Your task to perform on an android device: delete browsing data in the chrome app Image 0: 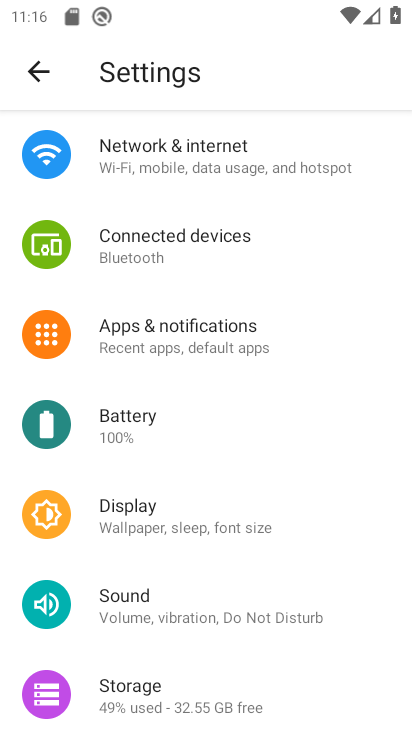
Step 0: press home button
Your task to perform on an android device: delete browsing data in the chrome app Image 1: 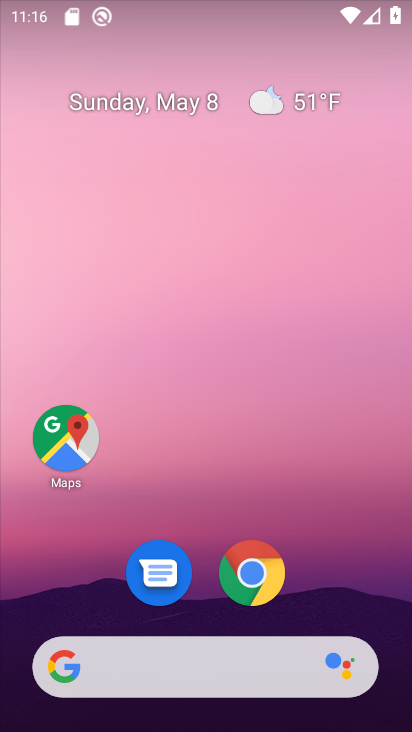
Step 1: click (232, 574)
Your task to perform on an android device: delete browsing data in the chrome app Image 2: 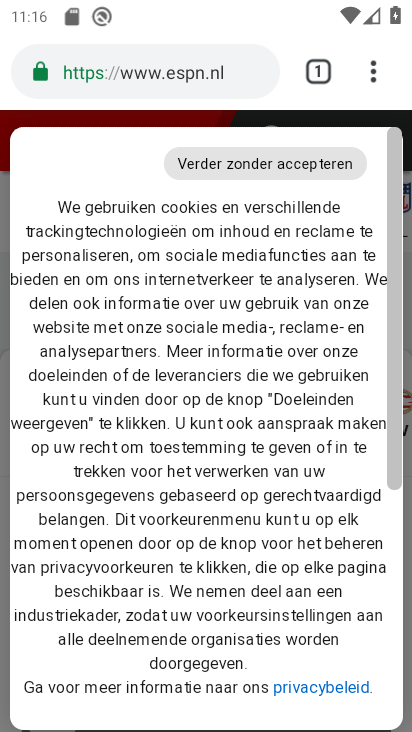
Step 2: click (376, 70)
Your task to perform on an android device: delete browsing data in the chrome app Image 3: 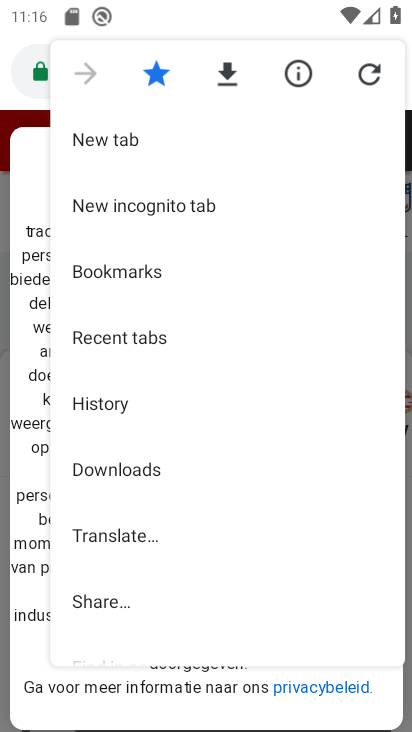
Step 3: drag from (138, 631) to (194, 219)
Your task to perform on an android device: delete browsing data in the chrome app Image 4: 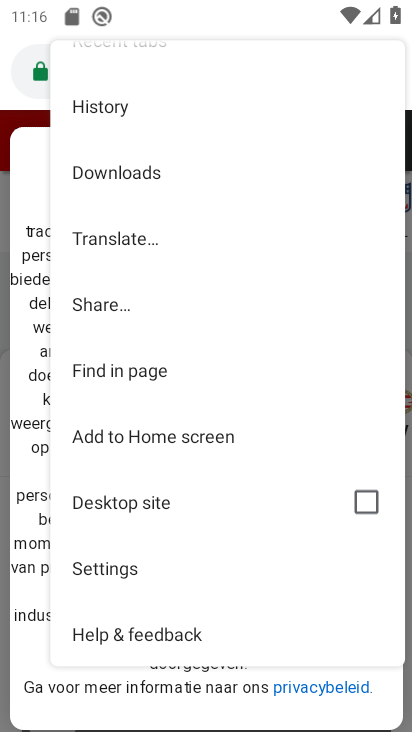
Step 4: click (117, 574)
Your task to perform on an android device: delete browsing data in the chrome app Image 5: 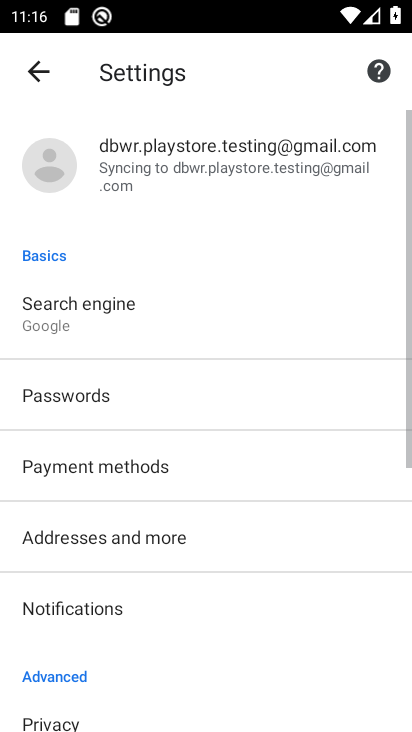
Step 5: drag from (124, 664) to (159, 246)
Your task to perform on an android device: delete browsing data in the chrome app Image 6: 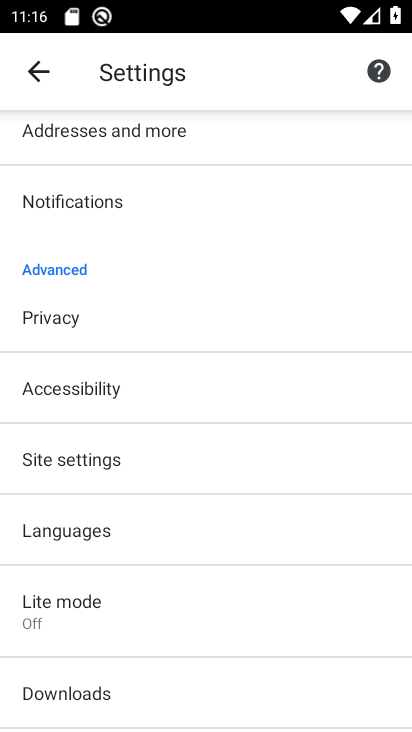
Step 6: click (63, 316)
Your task to perform on an android device: delete browsing data in the chrome app Image 7: 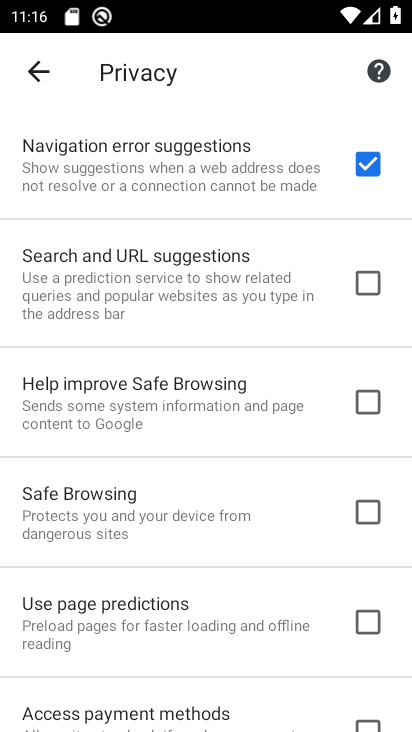
Step 7: drag from (173, 660) to (179, 268)
Your task to perform on an android device: delete browsing data in the chrome app Image 8: 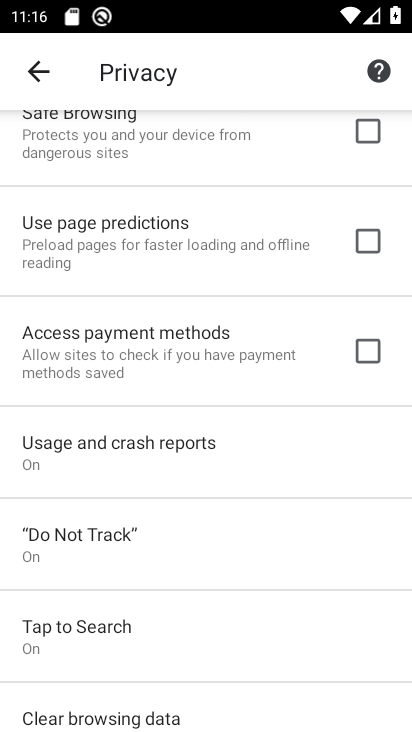
Step 8: drag from (110, 711) to (117, 415)
Your task to perform on an android device: delete browsing data in the chrome app Image 9: 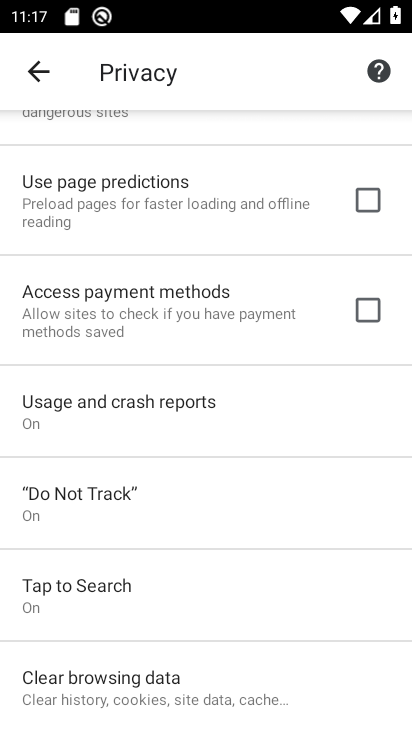
Step 9: drag from (149, 649) to (161, 330)
Your task to perform on an android device: delete browsing data in the chrome app Image 10: 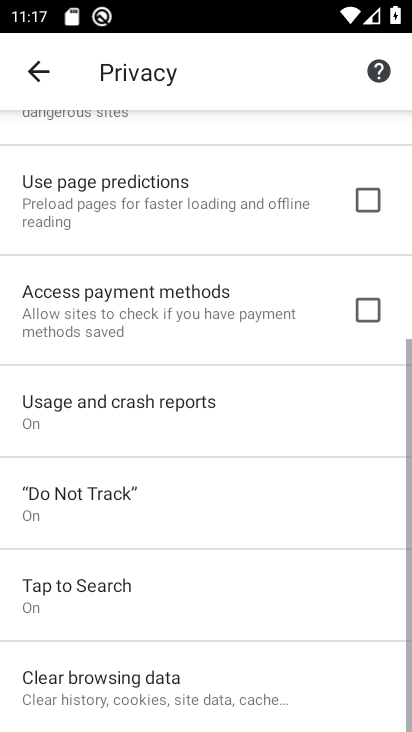
Step 10: click (97, 692)
Your task to perform on an android device: delete browsing data in the chrome app Image 11: 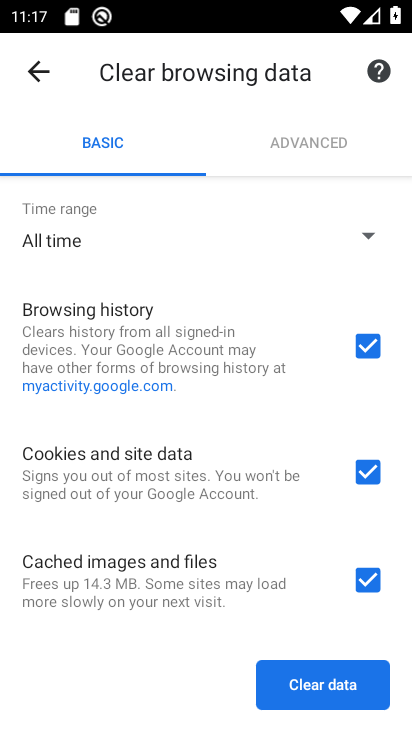
Step 11: click (290, 695)
Your task to perform on an android device: delete browsing data in the chrome app Image 12: 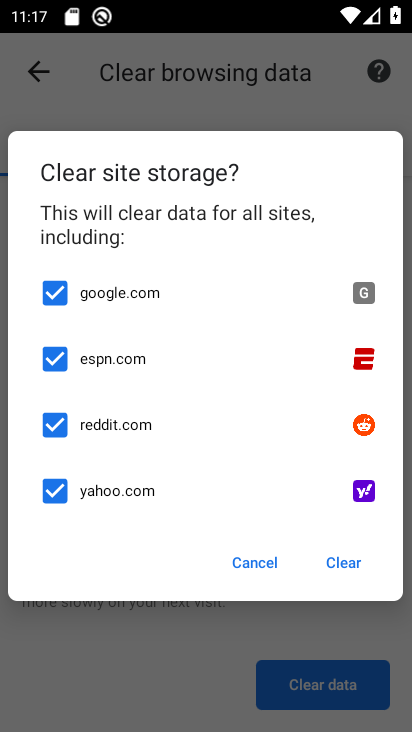
Step 12: click (349, 558)
Your task to perform on an android device: delete browsing data in the chrome app Image 13: 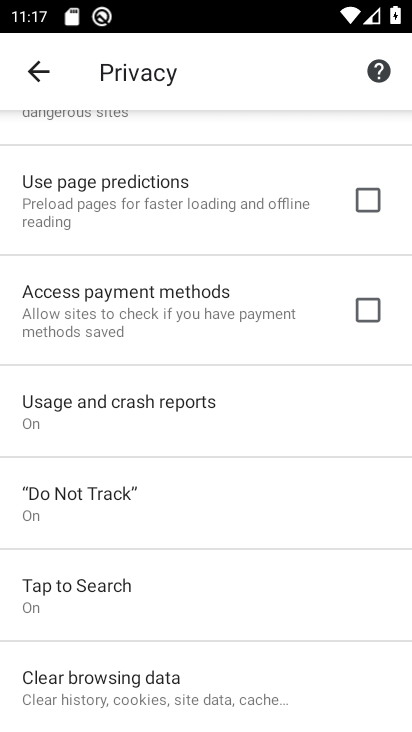
Step 13: task complete